Your task to perform on an android device: turn on wifi Image 0: 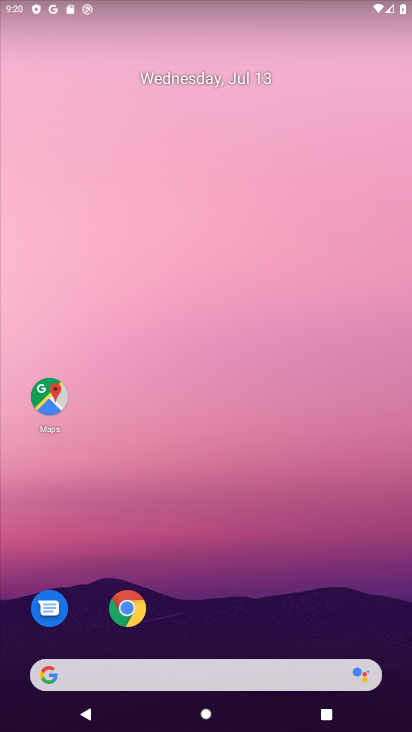
Step 0: drag from (210, 616) to (295, 94)
Your task to perform on an android device: turn on wifi Image 1: 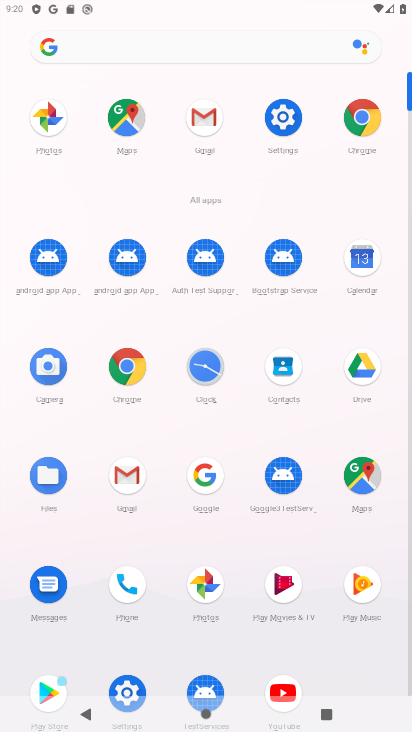
Step 1: click (293, 106)
Your task to perform on an android device: turn on wifi Image 2: 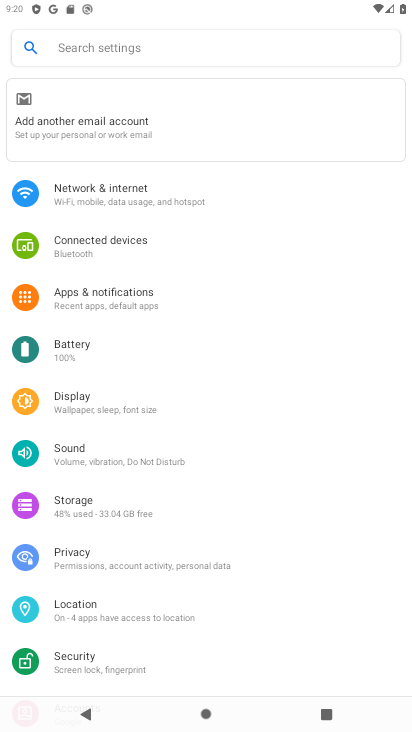
Step 2: click (144, 195)
Your task to perform on an android device: turn on wifi Image 3: 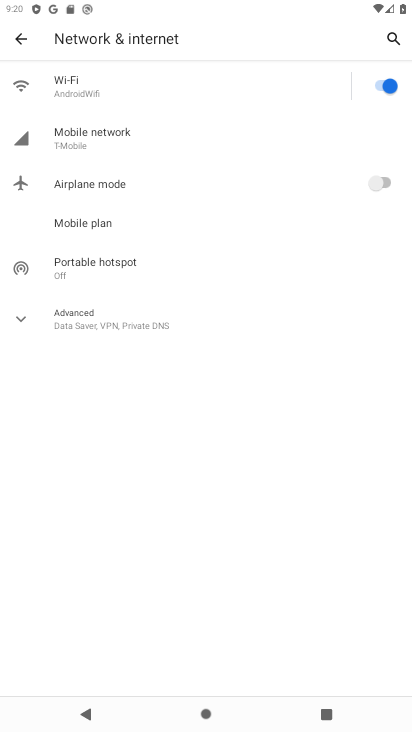
Step 3: task complete